Your task to perform on an android device: See recent photos Image 0: 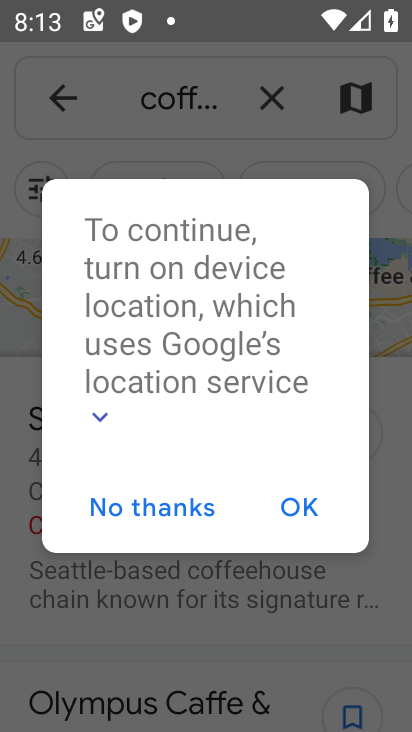
Step 0: press home button
Your task to perform on an android device: See recent photos Image 1: 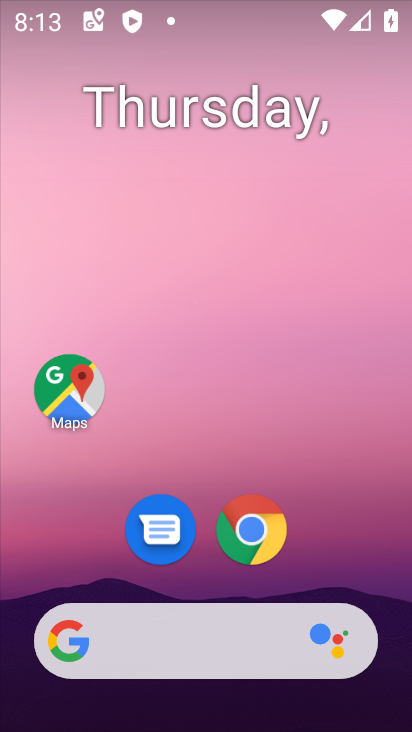
Step 1: drag from (279, 582) to (108, 97)
Your task to perform on an android device: See recent photos Image 2: 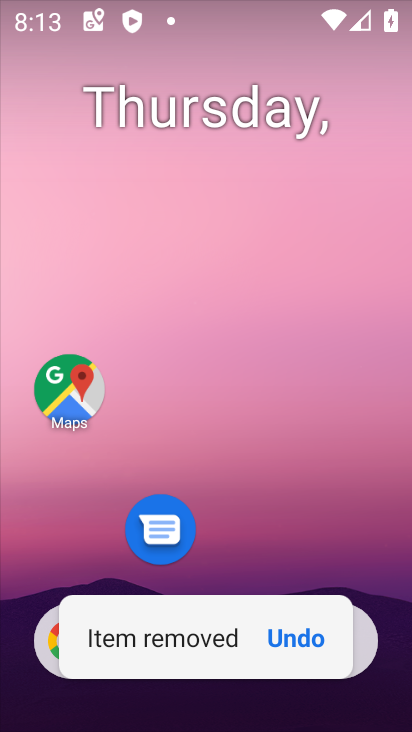
Step 2: click (294, 645)
Your task to perform on an android device: See recent photos Image 3: 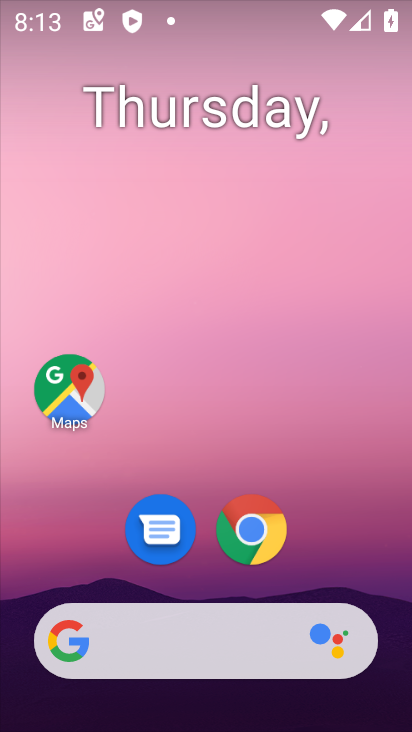
Step 3: drag from (217, 586) to (232, 44)
Your task to perform on an android device: See recent photos Image 4: 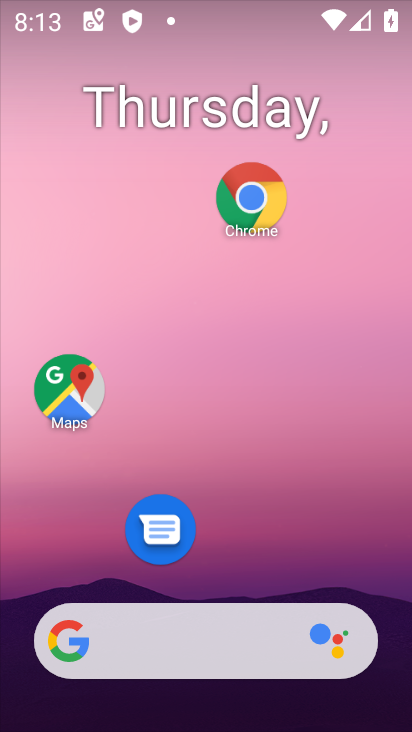
Step 4: drag from (232, 545) to (195, 0)
Your task to perform on an android device: See recent photos Image 5: 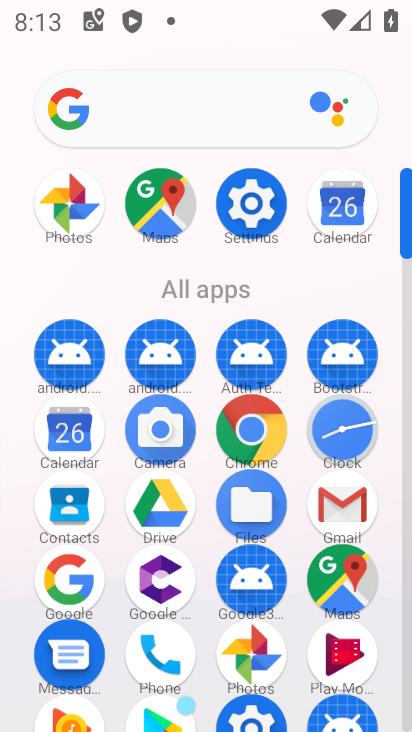
Step 5: click (228, 646)
Your task to perform on an android device: See recent photos Image 6: 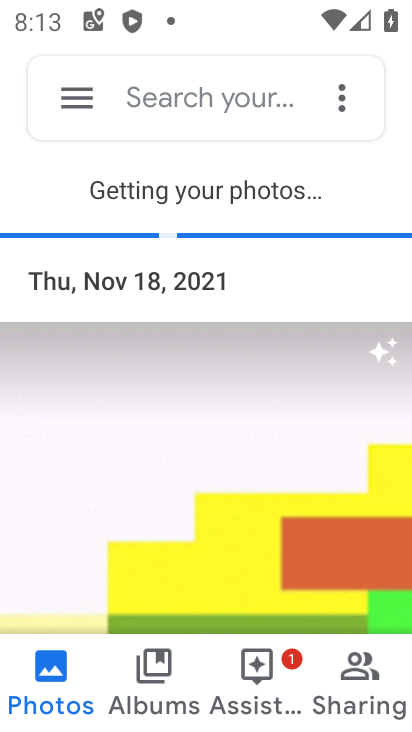
Step 6: task complete